Your task to perform on an android device: toggle pop-ups in chrome Image 0: 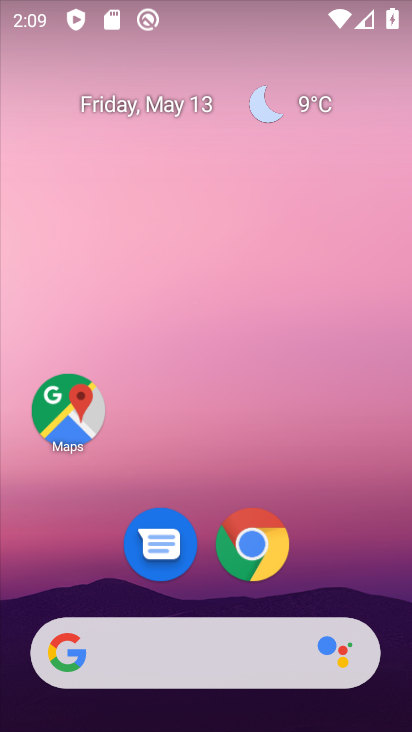
Step 0: click (261, 573)
Your task to perform on an android device: toggle pop-ups in chrome Image 1: 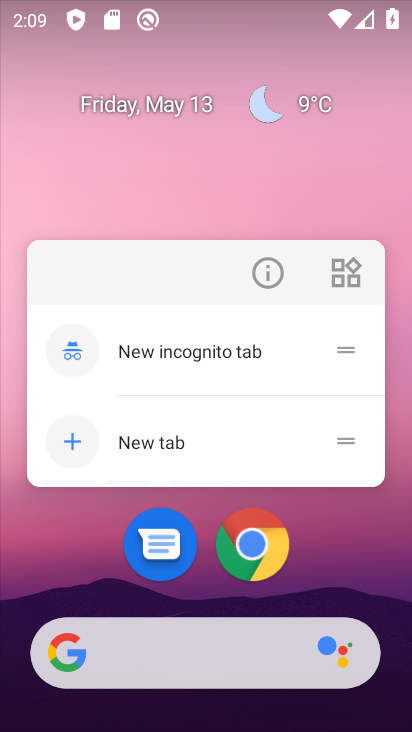
Step 1: click (271, 559)
Your task to perform on an android device: toggle pop-ups in chrome Image 2: 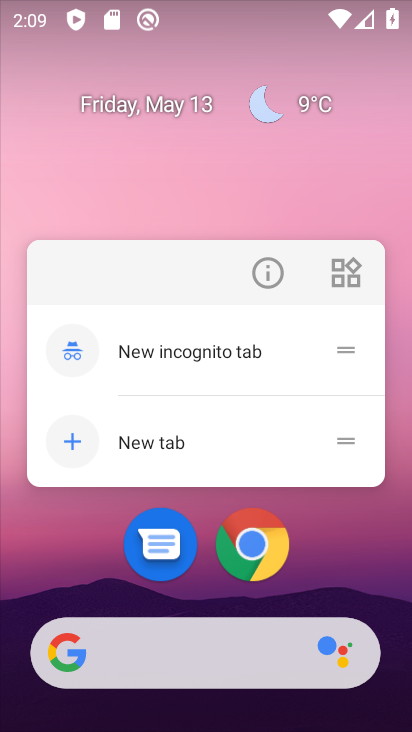
Step 2: click (271, 554)
Your task to perform on an android device: toggle pop-ups in chrome Image 3: 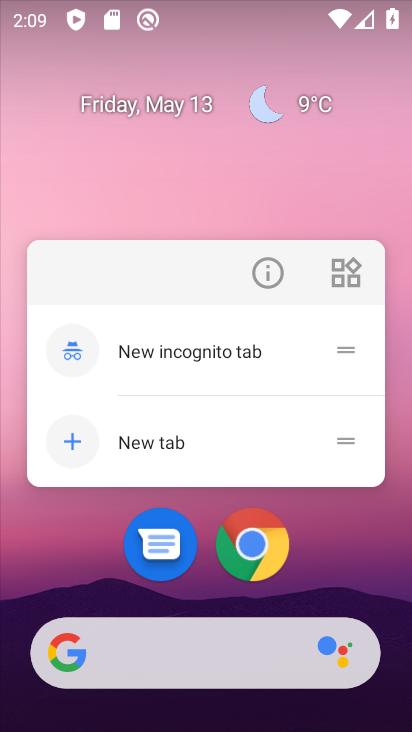
Step 3: click (263, 534)
Your task to perform on an android device: toggle pop-ups in chrome Image 4: 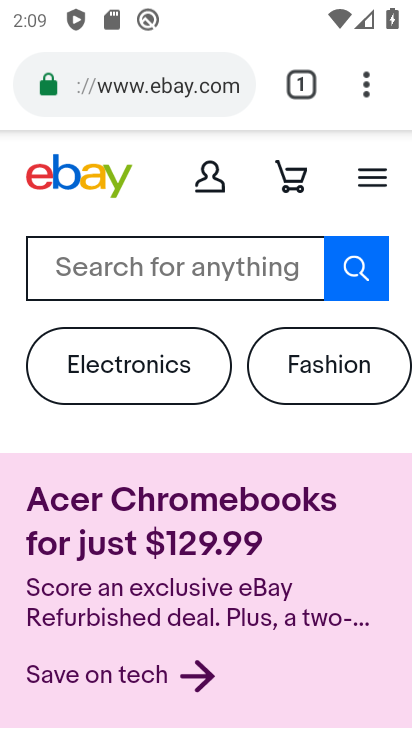
Step 4: drag from (374, 87) to (291, 609)
Your task to perform on an android device: toggle pop-ups in chrome Image 5: 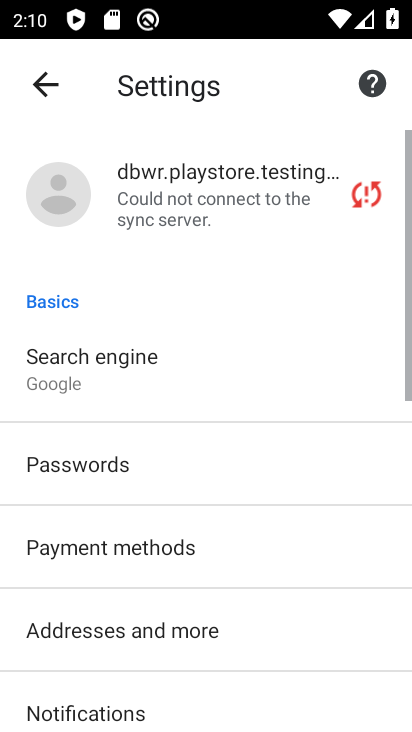
Step 5: drag from (225, 622) to (337, 237)
Your task to perform on an android device: toggle pop-ups in chrome Image 6: 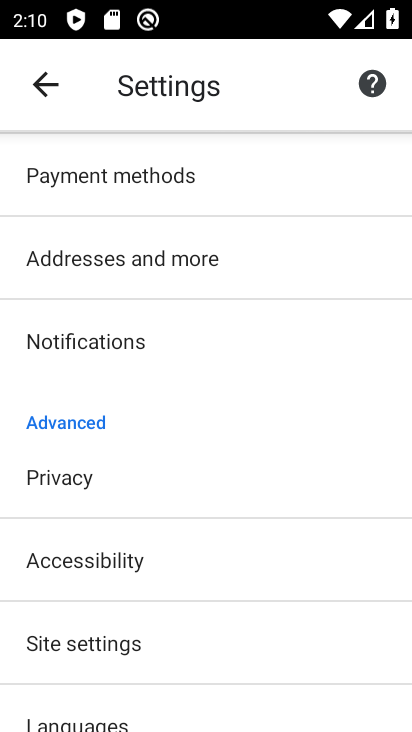
Step 6: click (127, 643)
Your task to perform on an android device: toggle pop-ups in chrome Image 7: 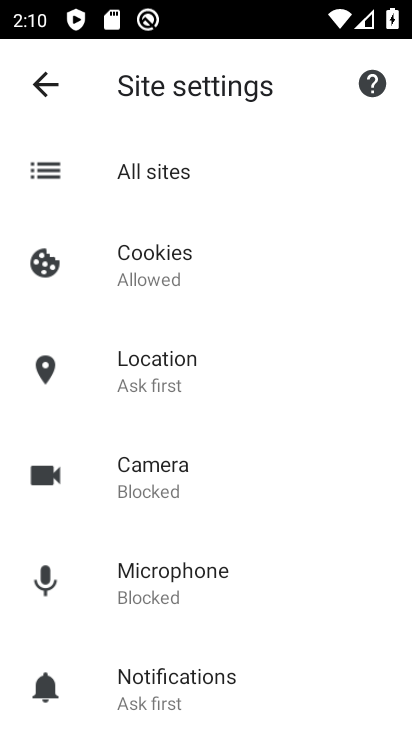
Step 7: drag from (146, 600) to (248, 402)
Your task to perform on an android device: toggle pop-ups in chrome Image 8: 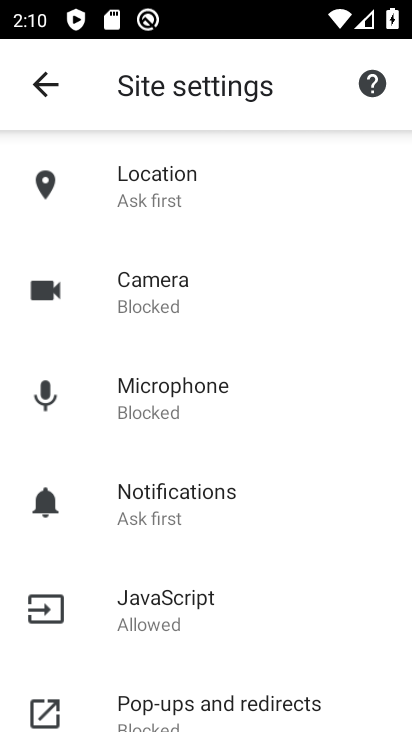
Step 8: drag from (218, 558) to (264, 422)
Your task to perform on an android device: toggle pop-ups in chrome Image 9: 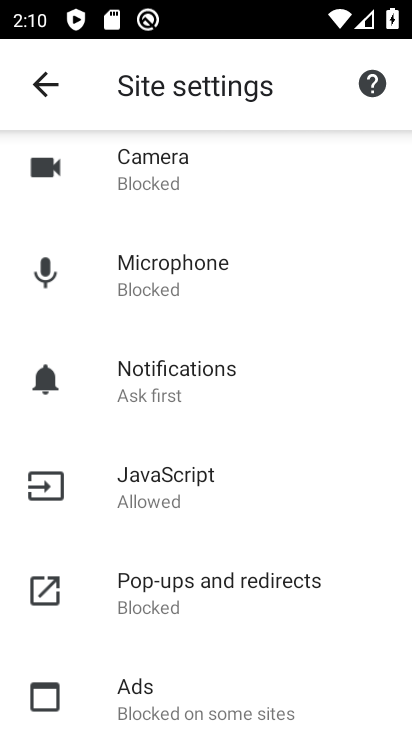
Step 9: click (262, 598)
Your task to perform on an android device: toggle pop-ups in chrome Image 10: 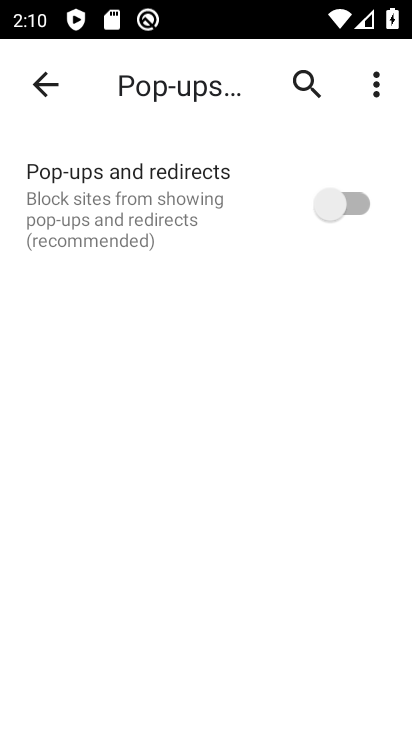
Step 10: click (366, 200)
Your task to perform on an android device: toggle pop-ups in chrome Image 11: 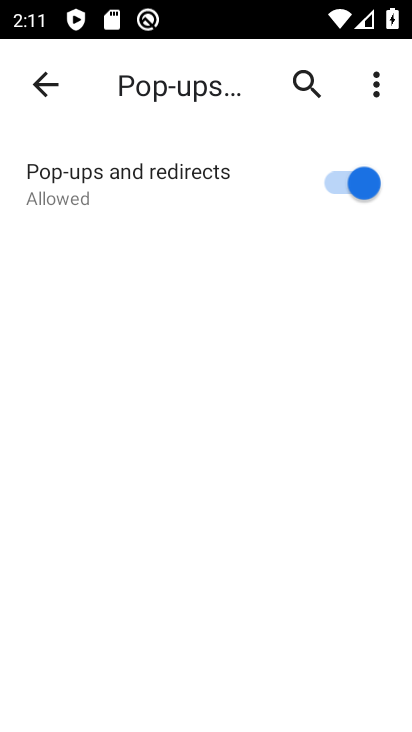
Step 11: task complete